Your task to perform on an android device: Show me recent news Image 0: 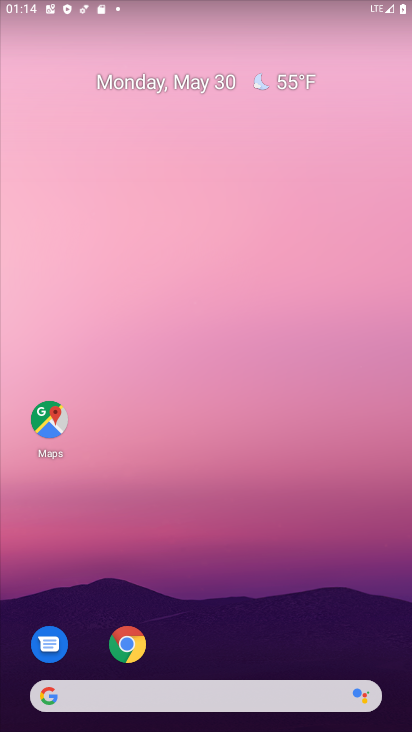
Step 0: drag from (260, 626) to (263, 140)
Your task to perform on an android device: Show me recent news Image 1: 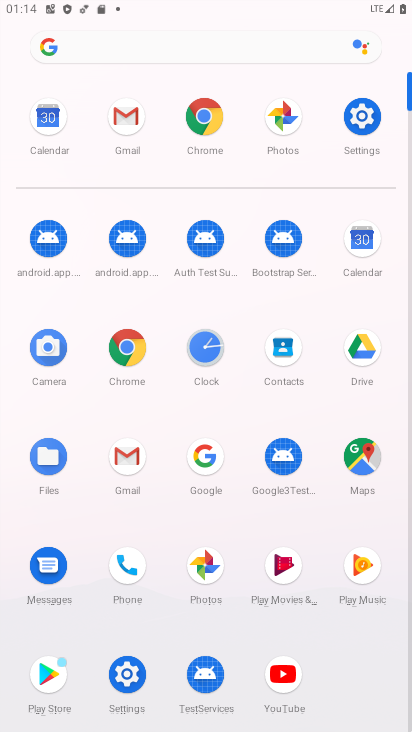
Step 1: click (210, 124)
Your task to perform on an android device: Show me recent news Image 2: 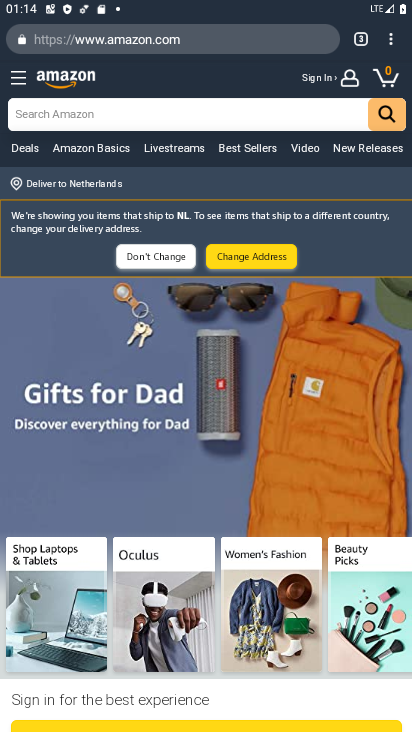
Step 2: click (153, 36)
Your task to perform on an android device: Show me recent news Image 3: 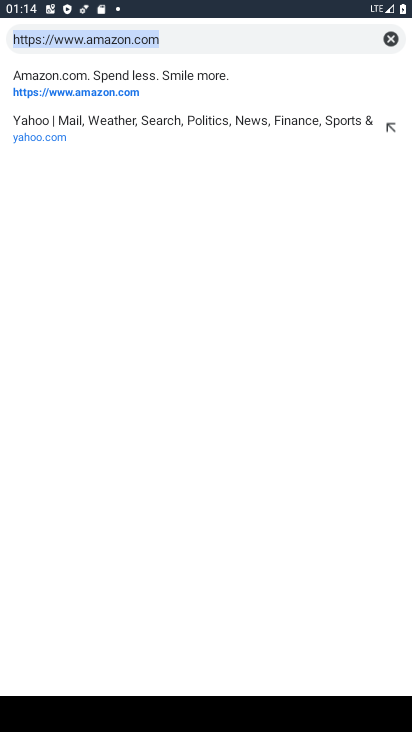
Step 3: click (387, 31)
Your task to perform on an android device: Show me recent news Image 4: 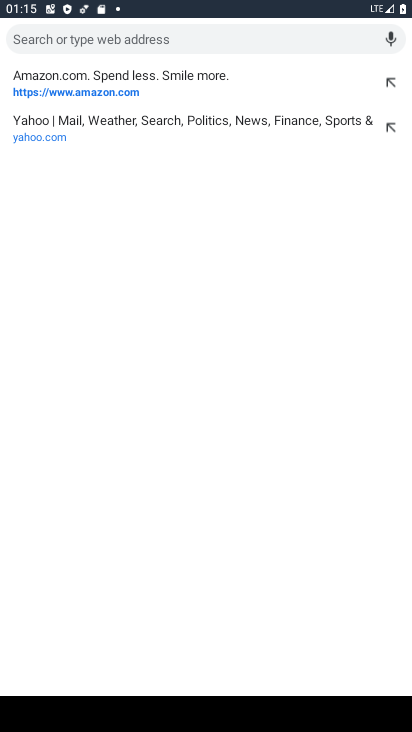
Step 4: type "recent news "
Your task to perform on an android device: Show me recent news Image 5: 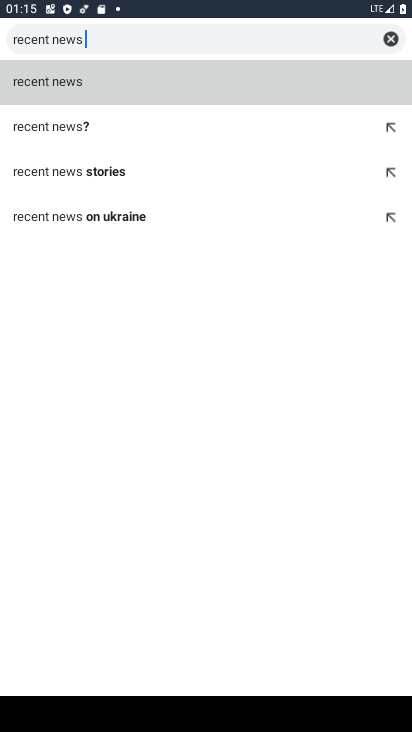
Step 5: click (202, 83)
Your task to perform on an android device: Show me recent news Image 6: 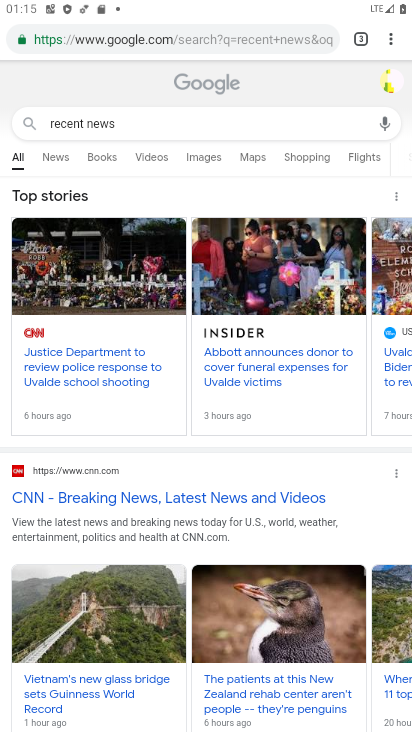
Step 6: task complete